Your task to perform on an android device: What's on my calendar tomorrow? Image 0: 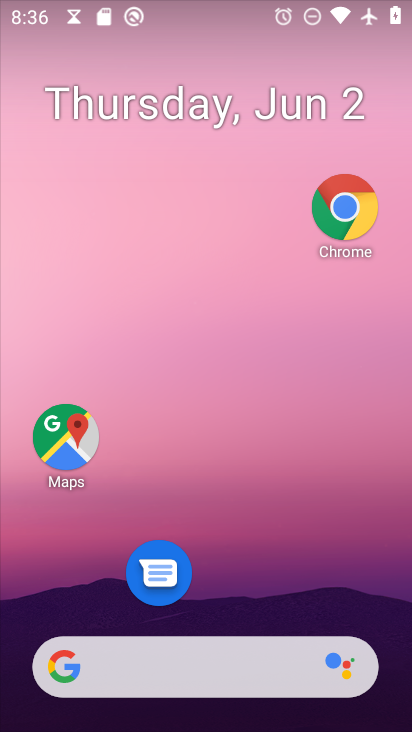
Step 0: drag from (180, 670) to (255, 79)
Your task to perform on an android device: What's on my calendar tomorrow? Image 1: 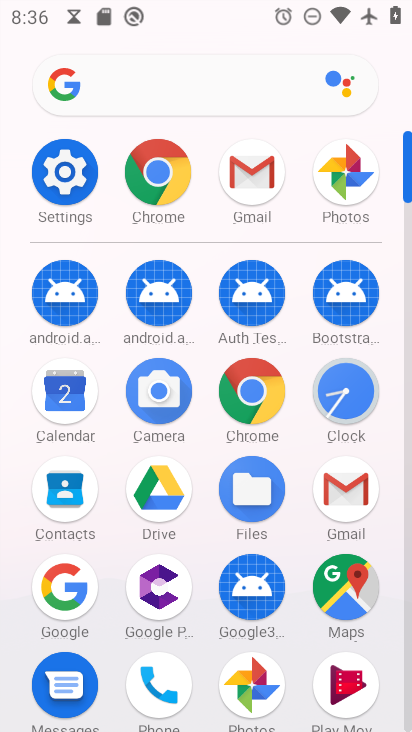
Step 1: click (65, 406)
Your task to perform on an android device: What's on my calendar tomorrow? Image 2: 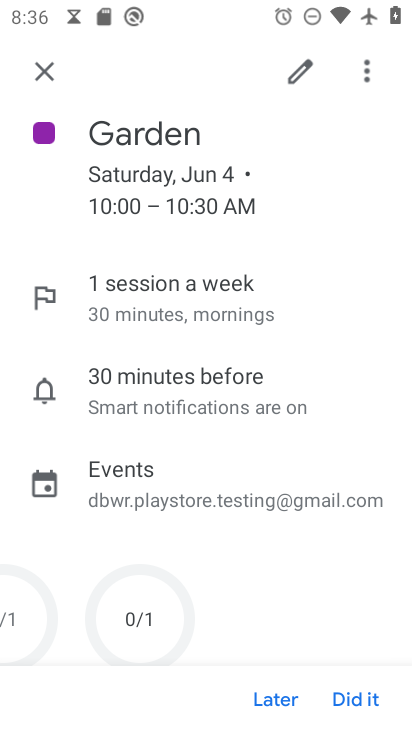
Step 2: click (48, 62)
Your task to perform on an android device: What's on my calendar tomorrow? Image 3: 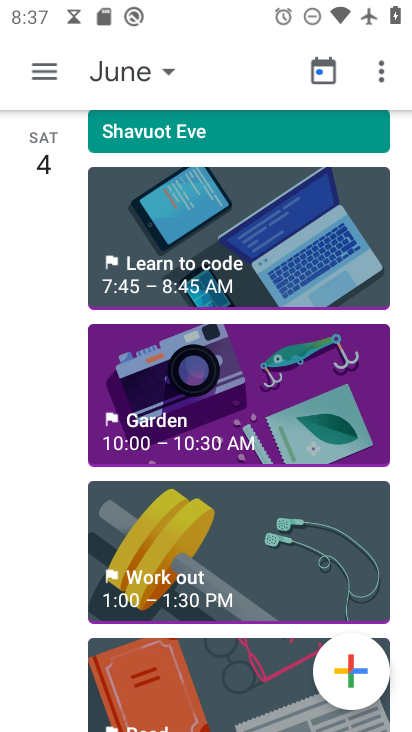
Step 3: click (119, 80)
Your task to perform on an android device: What's on my calendar tomorrow? Image 4: 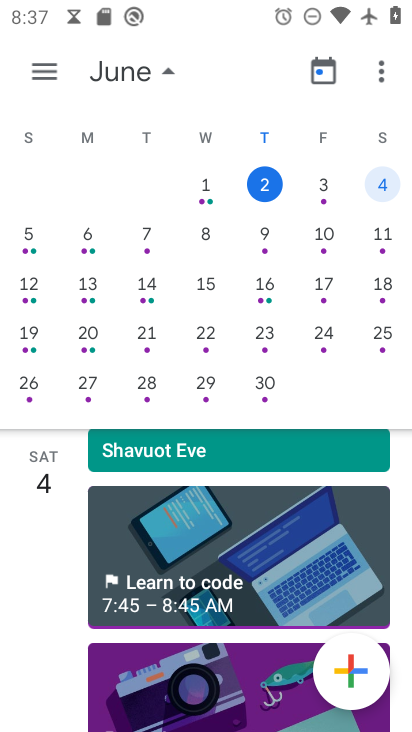
Step 4: click (319, 189)
Your task to perform on an android device: What's on my calendar tomorrow? Image 5: 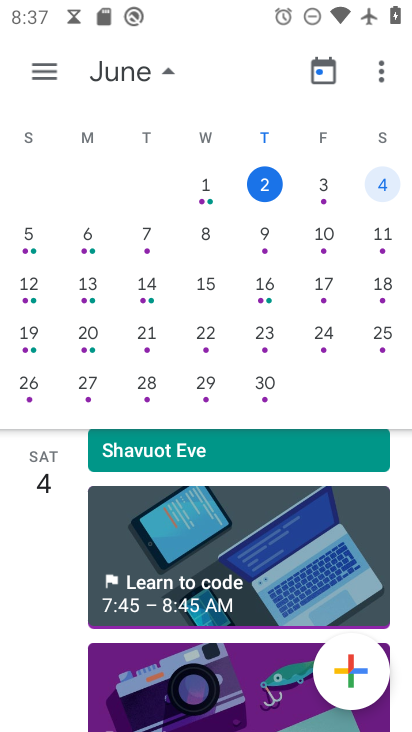
Step 5: click (324, 184)
Your task to perform on an android device: What's on my calendar tomorrow? Image 6: 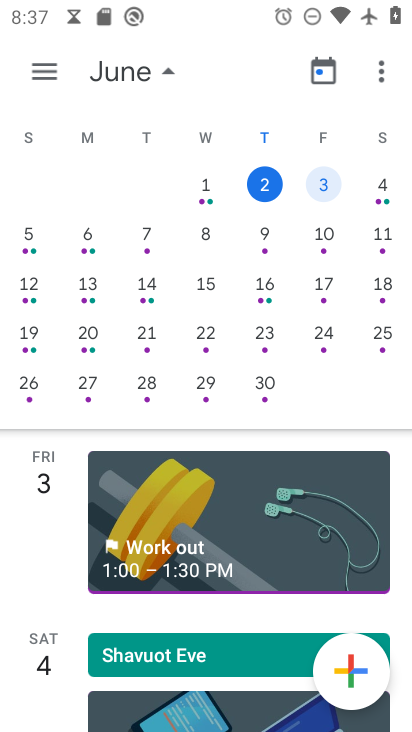
Step 6: click (37, 59)
Your task to perform on an android device: What's on my calendar tomorrow? Image 7: 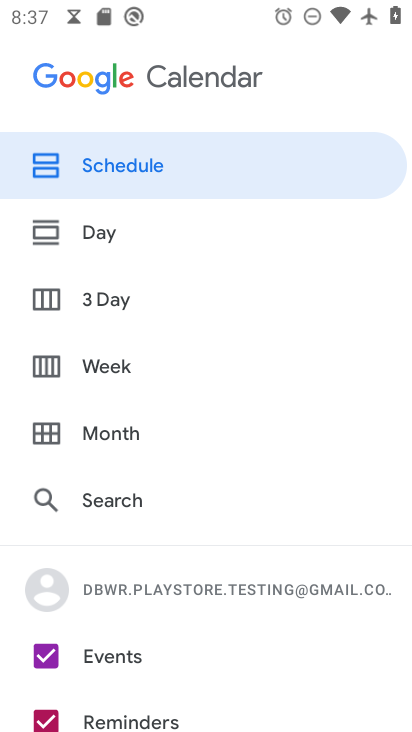
Step 7: click (104, 229)
Your task to perform on an android device: What's on my calendar tomorrow? Image 8: 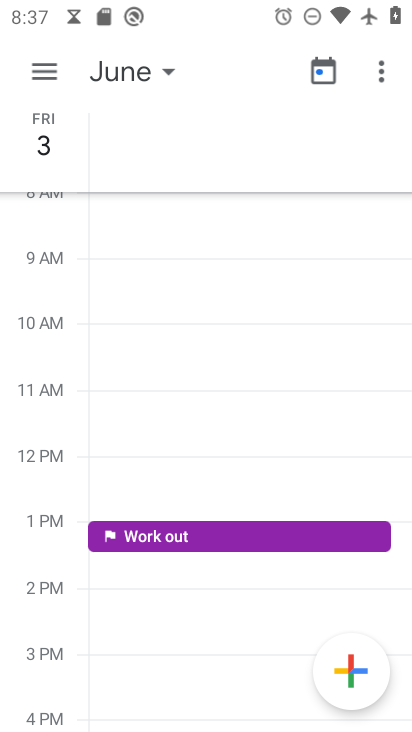
Step 8: click (51, 64)
Your task to perform on an android device: What's on my calendar tomorrow? Image 9: 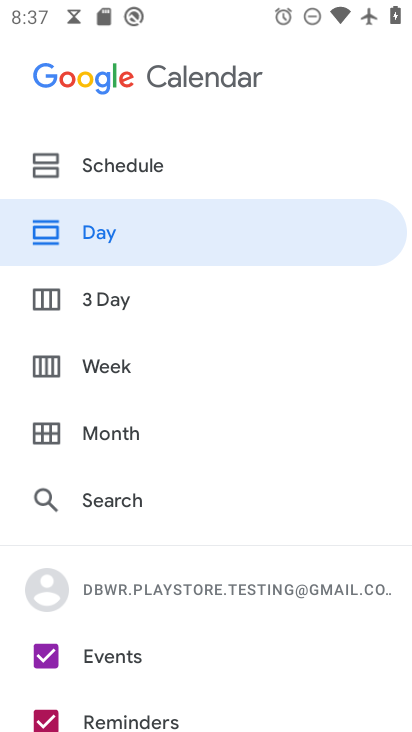
Step 9: click (106, 175)
Your task to perform on an android device: What's on my calendar tomorrow? Image 10: 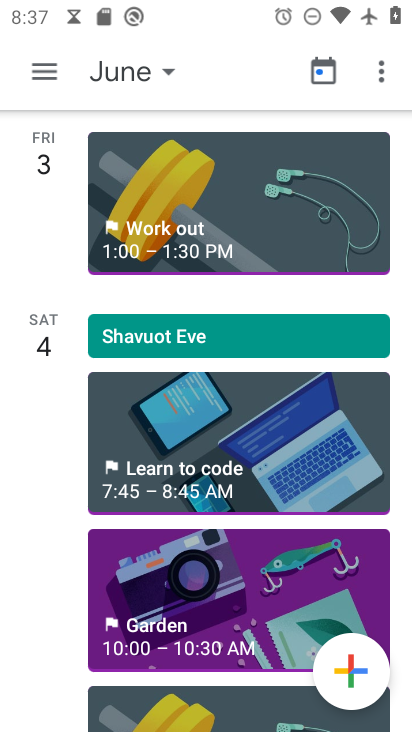
Step 10: task complete